Your task to perform on an android device: open a bookmark in the chrome app Image 0: 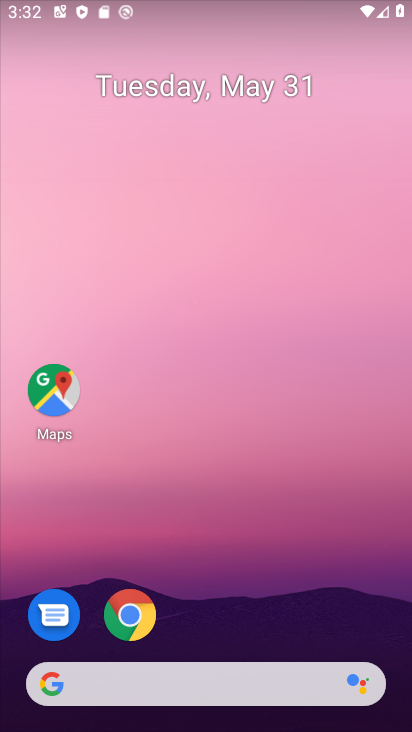
Step 0: drag from (238, 692) to (168, 107)
Your task to perform on an android device: open a bookmark in the chrome app Image 1: 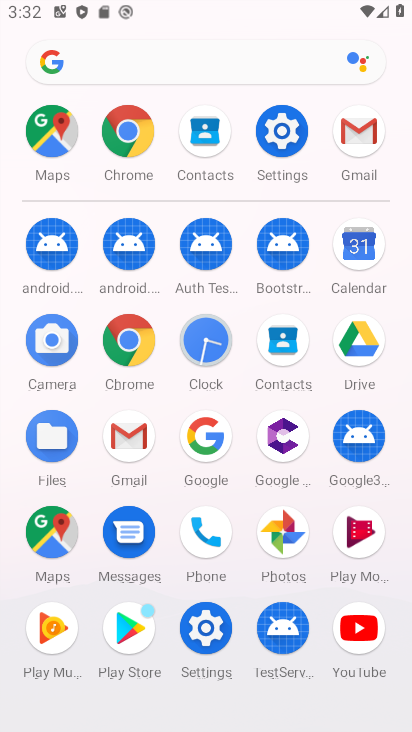
Step 1: click (131, 109)
Your task to perform on an android device: open a bookmark in the chrome app Image 2: 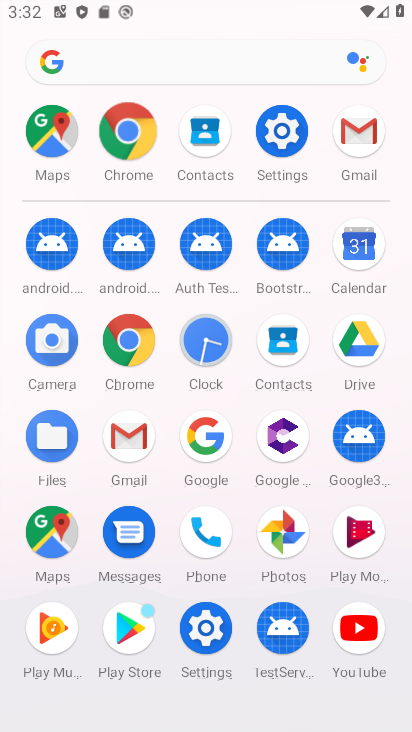
Step 2: click (135, 127)
Your task to perform on an android device: open a bookmark in the chrome app Image 3: 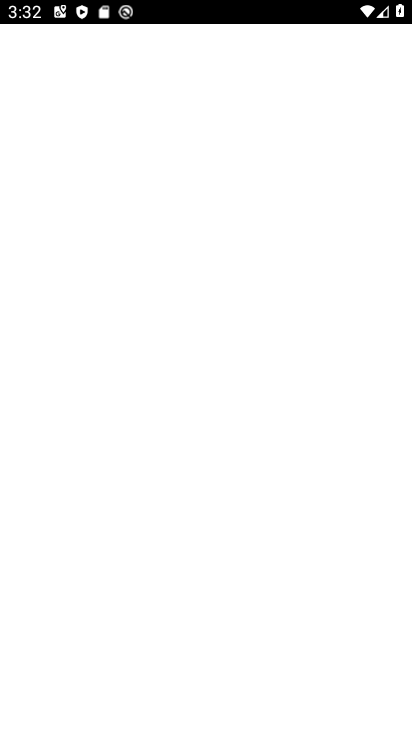
Step 3: click (130, 135)
Your task to perform on an android device: open a bookmark in the chrome app Image 4: 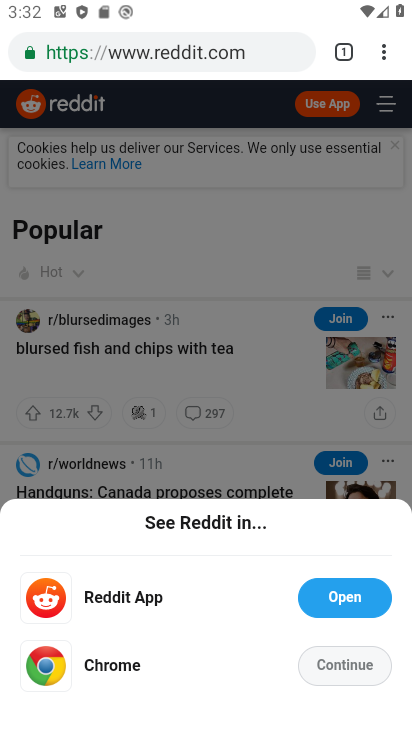
Step 4: drag from (384, 55) to (197, 199)
Your task to perform on an android device: open a bookmark in the chrome app Image 5: 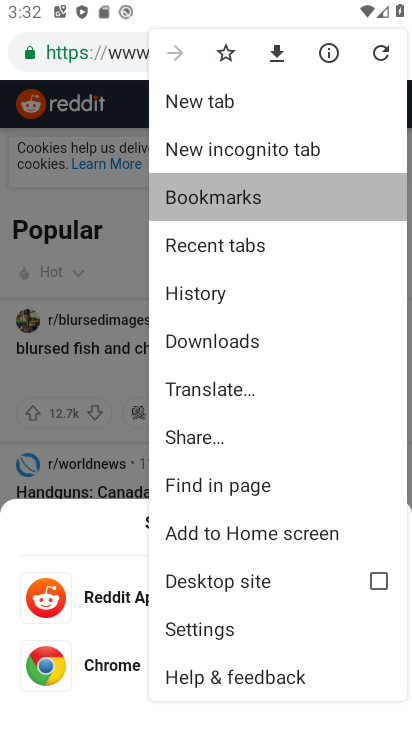
Step 5: click (195, 204)
Your task to perform on an android device: open a bookmark in the chrome app Image 6: 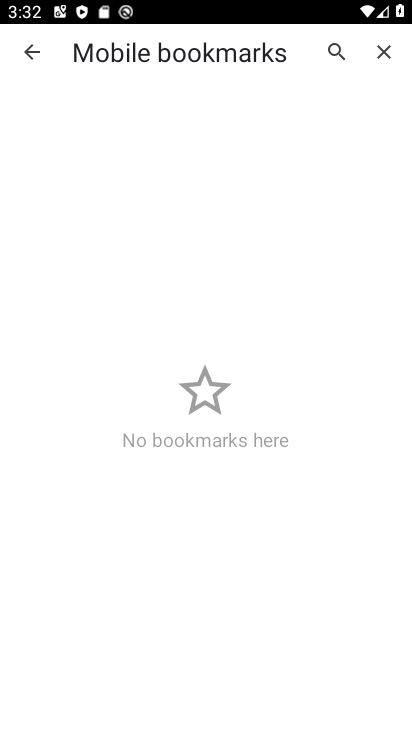
Step 6: task complete